Your task to perform on an android device: turn on wifi Image 0: 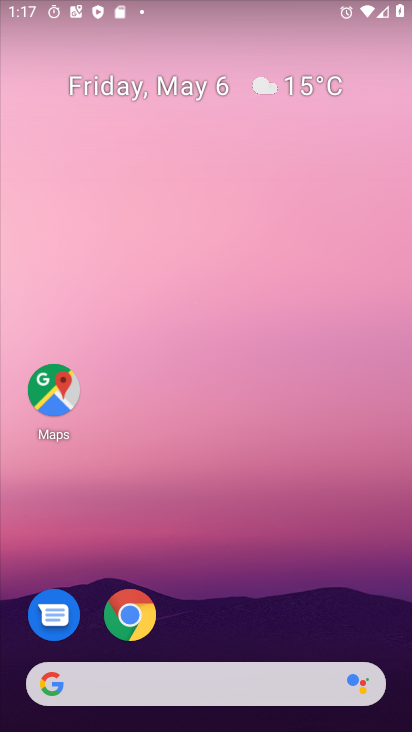
Step 0: press home button
Your task to perform on an android device: turn on wifi Image 1: 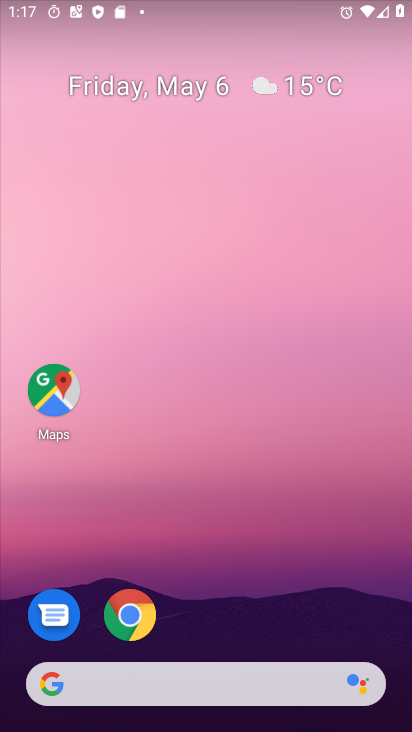
Step 1: drag from (236, 492) to (269, 16)
Your task to perform on an android device: turn on wifi Image 2: 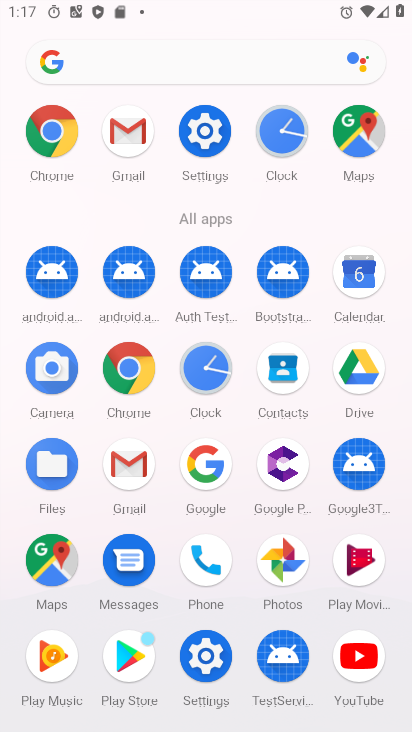
Step 2: click (198, 129)
Your task to perform on an android device: turn on wifi Image 3: 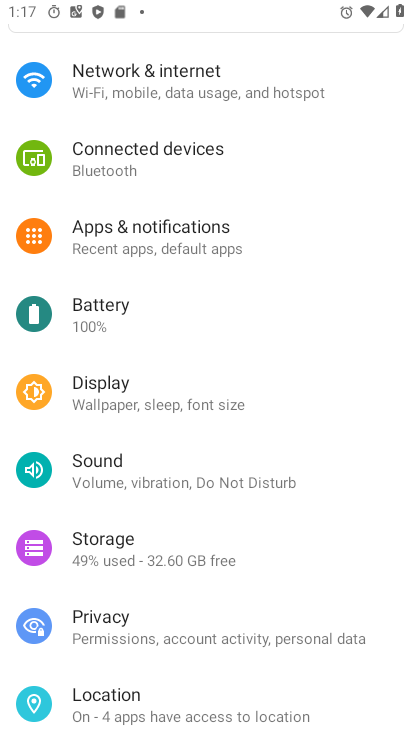
Step 3: click (282, 83)
Your task to perform on an android device: turn on wifi Image 4: 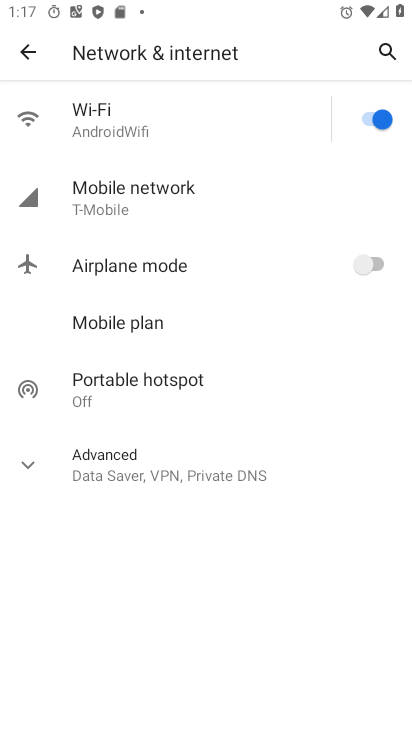
Step 4: task complete